Your task to perform on an android device: Search for sushi restaurants on Maps Image 0: 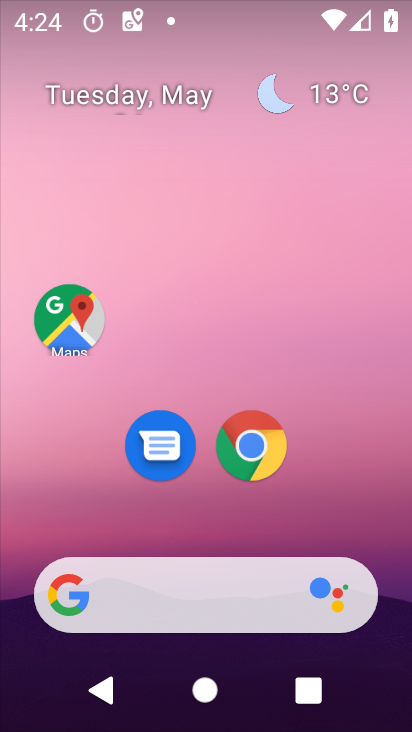
Step 0: click (64, 315)
Your task to perform on an android device: Search for sushi restaurants on Maps Image 1: 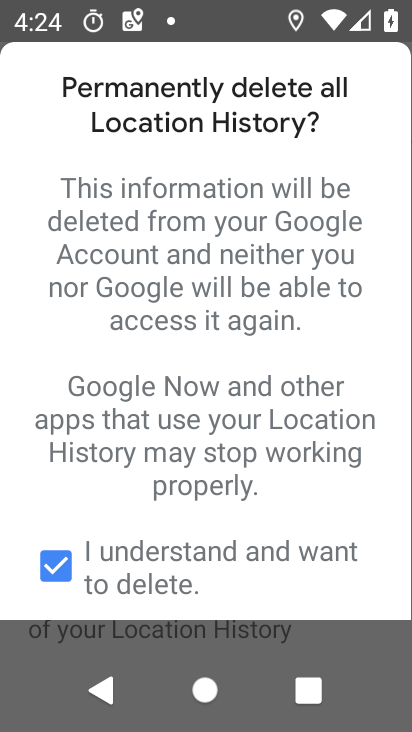
Step 1: press back button
Your task to perform on an android device: Search for sushi restaurants on Maps Image 2: 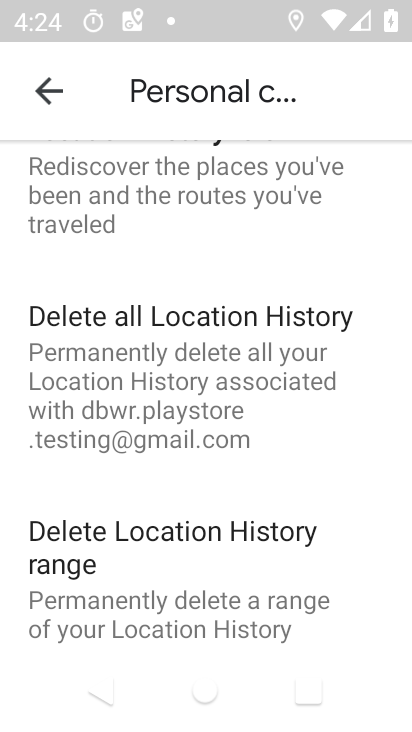
Step 2: press back button
Your task to perform on an android device: Search for sushi restaurants on Maps Image 3: 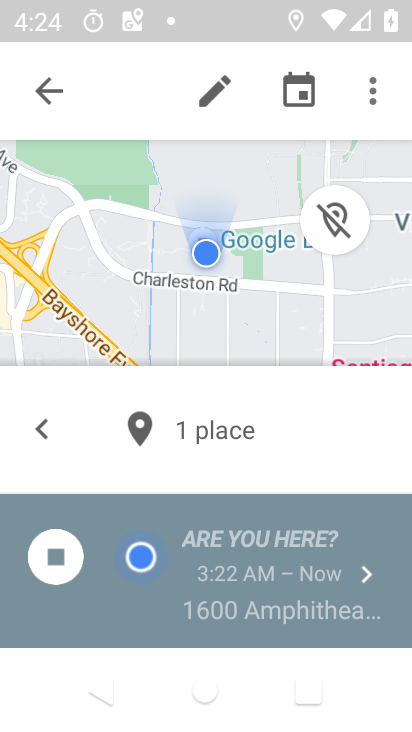
Step 3: press back button
Your task to perform on an android device: Search for sushi restaurants on Maps Image 4: 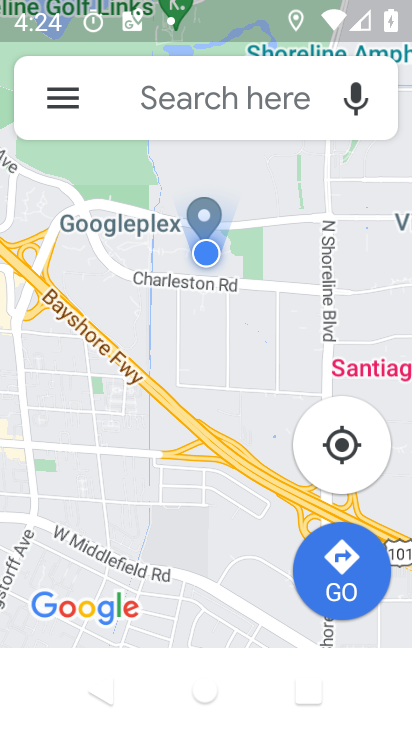
Step 4: click (170, 96)
Your task to perform on an android device: Search for sushi restaurants on Maps Image 5: 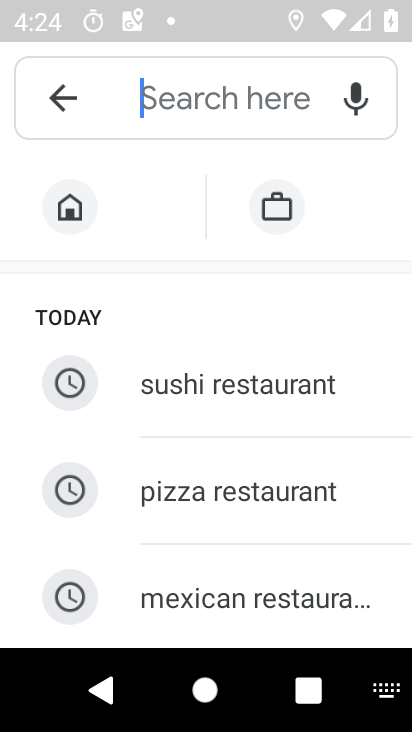
Step 5: click (199, 394)
Your task to perform on an android device: Search for sushi restaurants on Maps Image 6: 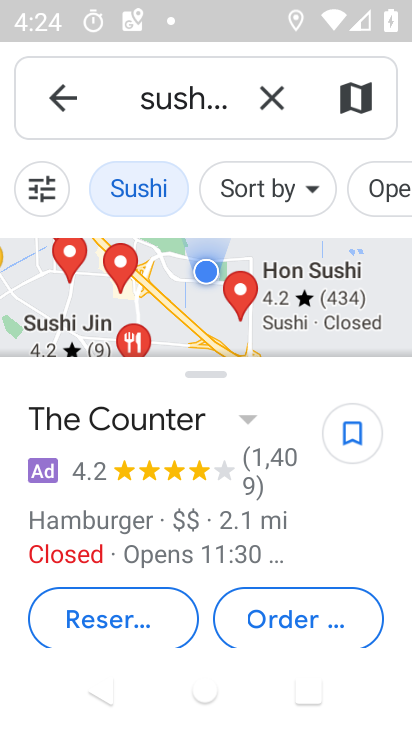
Step 6: task complete